Your task to perform on an android device: open a bookmark in the chrome app Image 0: 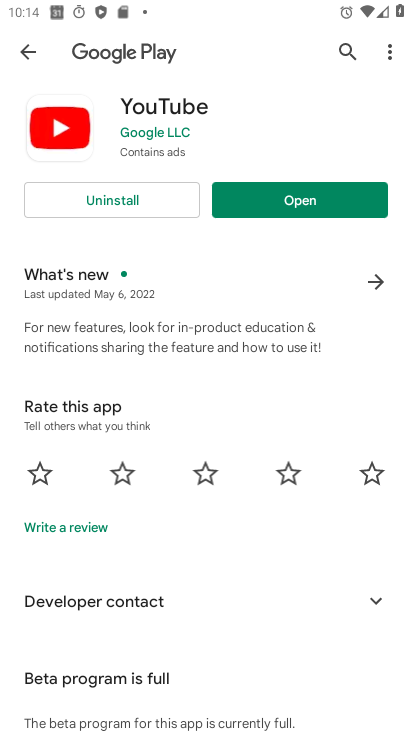
Step 0: press home button
Your task to perform on an android device: open a bookmark in the chrome app Image 1: 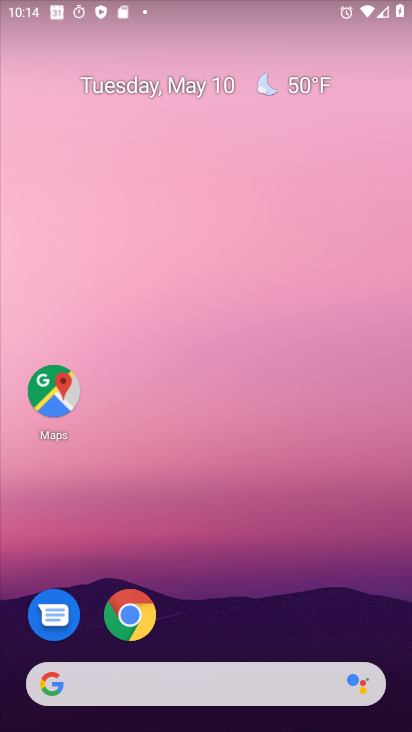
Step 1: click (130, 611)
Your task to perform on an android device: open a bookmark in the chrome app Image 2: 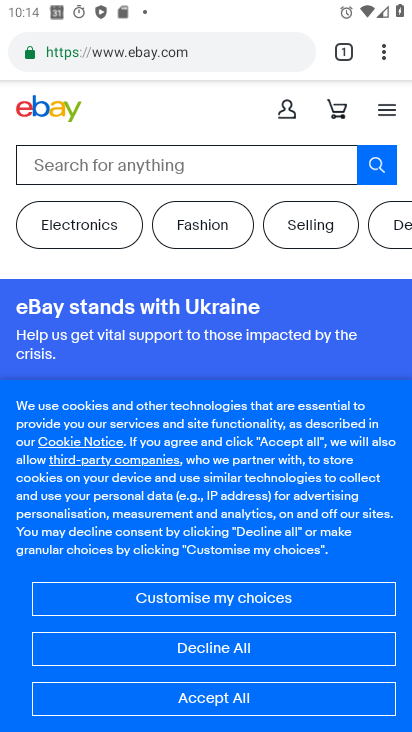
Step 2: click (381, 51)
Your task to perform on an android device: open a bookmark in the chrome app Image 3: 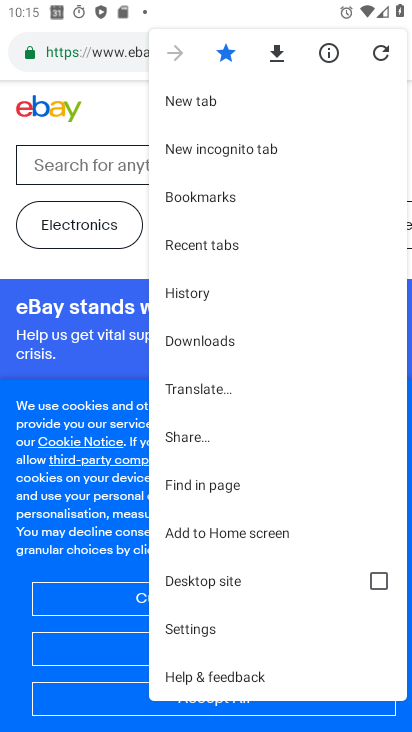
Step 3: click (243, 194)
Your task to perform on an android device: open a bookmark in the chrome app Image 4: 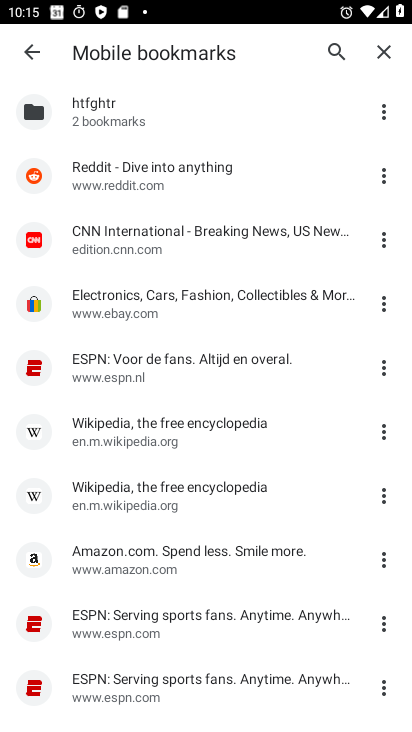
Step 4: click (171, 303)
Your task to perform on an android device: open a bookmark in the chrome app Image 5: 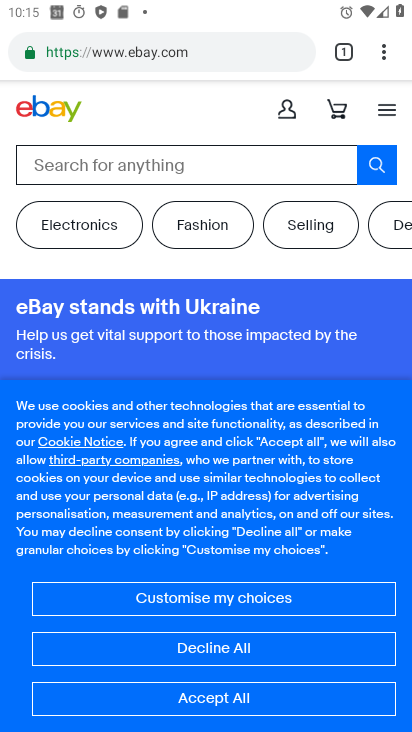
Step 5: task complete